Your task to perform on an android device: Open location settings Image 0: 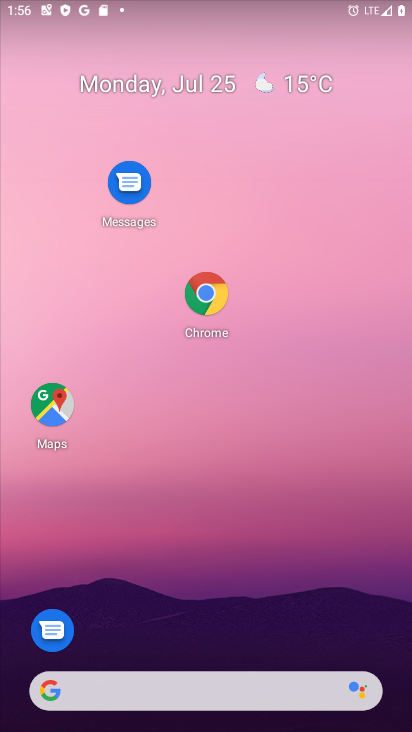
Step 0: drag from (256, 674) to (165, 5)
Your task to perform on an android device: Open location settings Image 1: 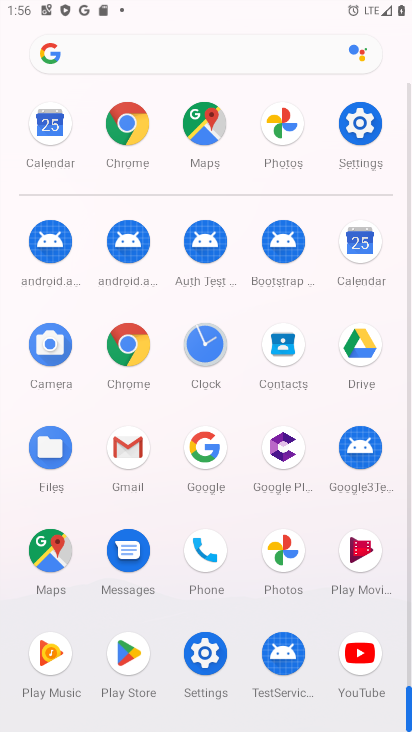
Step 1: click (212, 645)
Your task to perform on an android device: Open location settings Image 2: 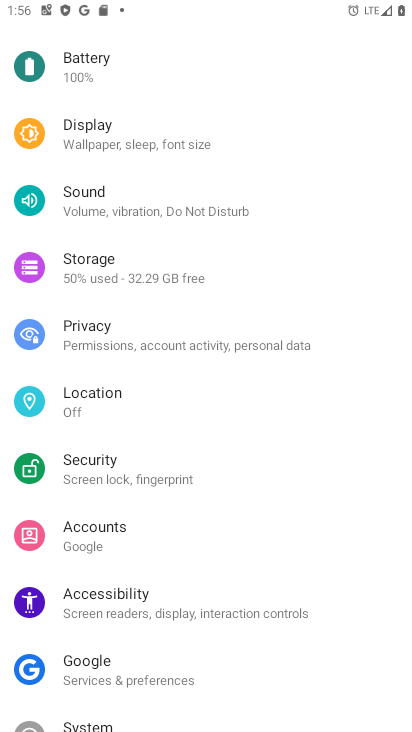
Step 2: click (104, 417)
Your task to perform on an android device: Open location settings Image 3: 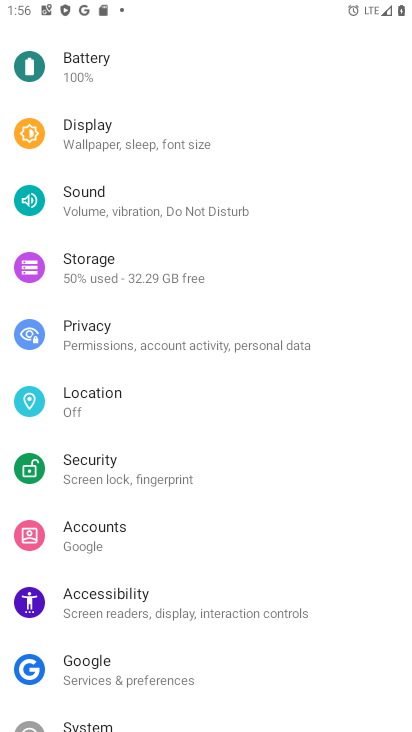
Step 3: click (153, 388)
Your task to perform on an android device: Open location settings Image 4: 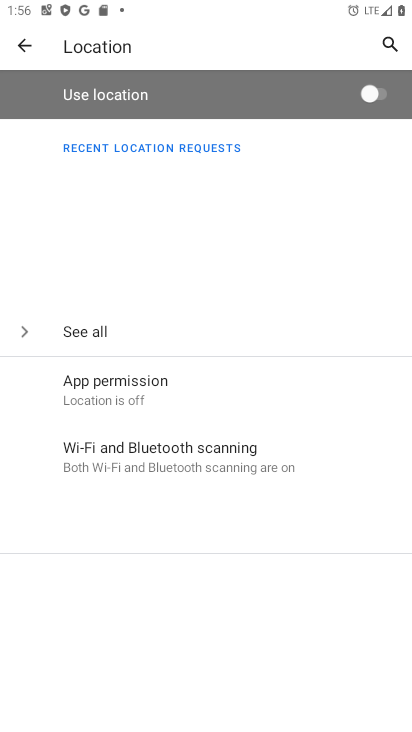
Step 4: task complete